Your task to perform on an android device: move a message to another label in the gmail app Image 0: 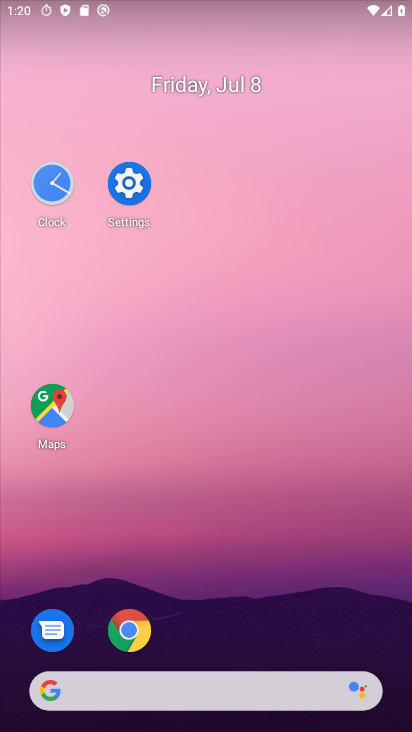
Step 0: drag from (226, 552) to (255, 97)
Your task to perform on an android device: move a message to another label in the gmail app Image 1: 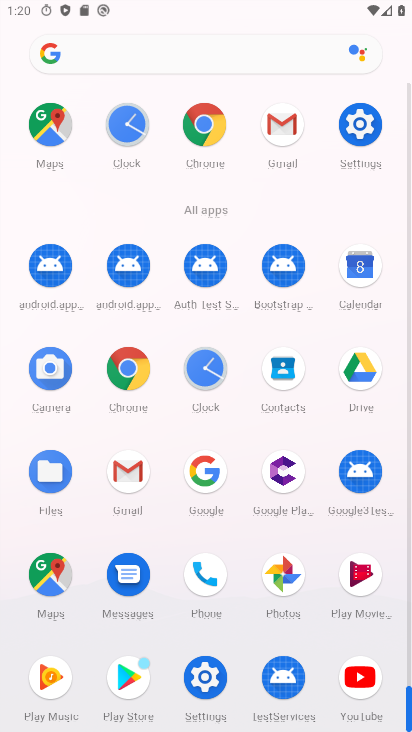
Step 1: drag from (288, 131) to (287, 193)
Your task to perform on an android device: move a message to another label in the gmail app Image 2: 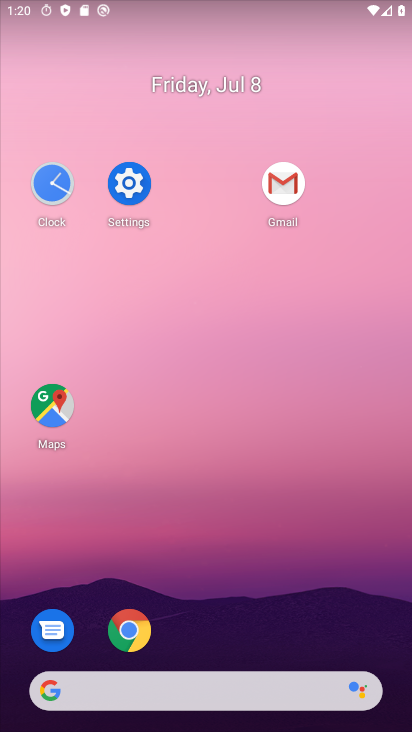
Step 2: click (292, 177)
Your task to perform on an android device: move a message to another label in the gmail app Image 3: 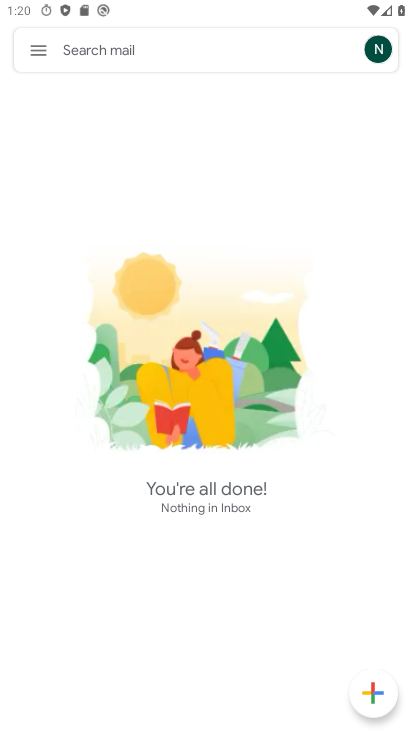
Step 3: task complete